Your task to perform on an android device: Show me productivity apps on the Play Store Image 0: 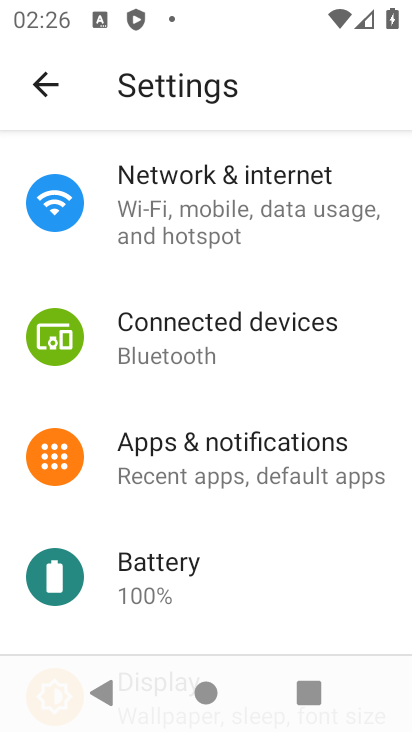
Step 0: press home button
Your task to perform on an android device: Show me productivity apps on the Play Store Image 1: 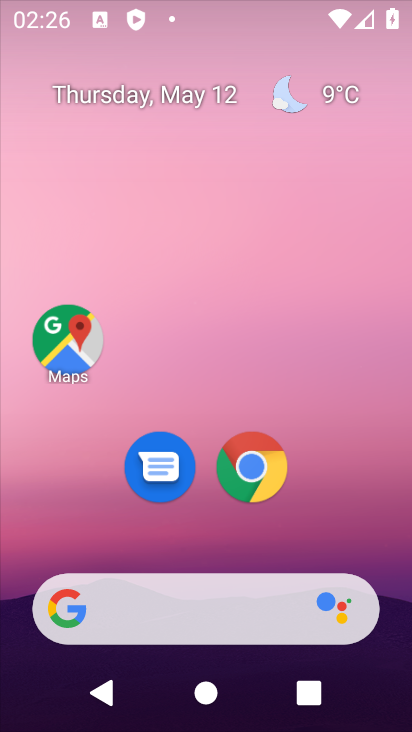
Step 1: drag from (265, 548) to (289, 240)
Your task to perform on an android device: Show me productivity apps on the Play Store Image 2: 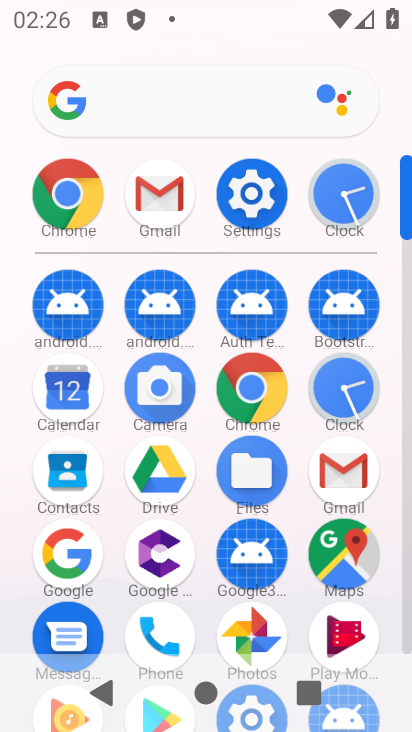
Step 2: drag from (187, 562) to (216, 263)
Your task to perform on an android device: Show me productivity apps on the Play Store Image 3: 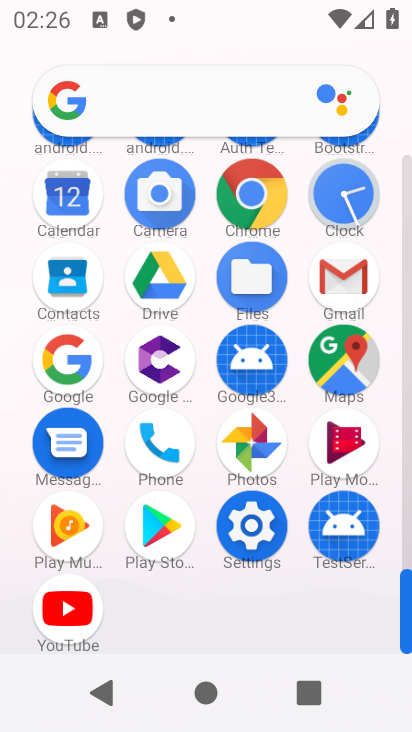
Step 3: click (157, 514)
Your task to perform on an android device: Show me productivity apps on the Play Store Image 4: 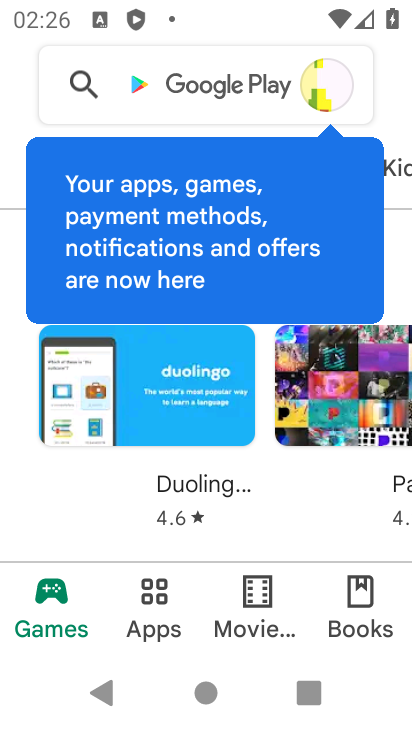
Step 4: click (158, 594)
Your task to perform on an android device: Show me productivity apps on the Play Store Image 5: 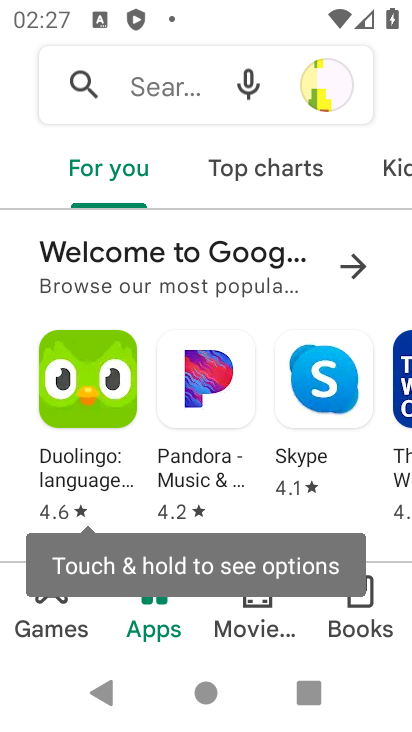
Step 5: task complete